Your task to perform on an android device: Go to Wikipedia Image 0: 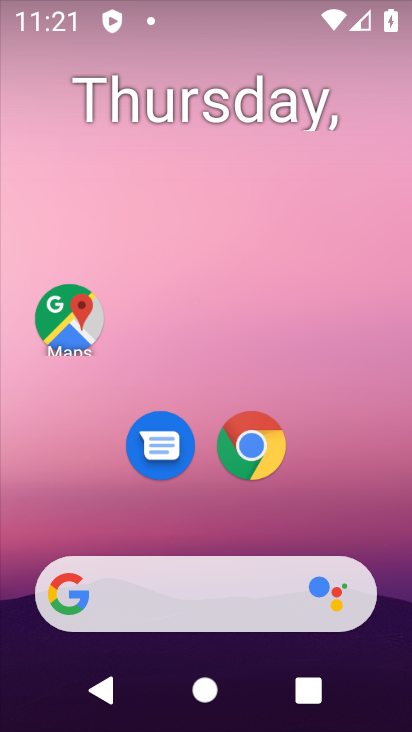
Step 0: drag from (308, 502) to (366, 60)
Your task to perform on an android device: Go to Wikipedia Image 1: 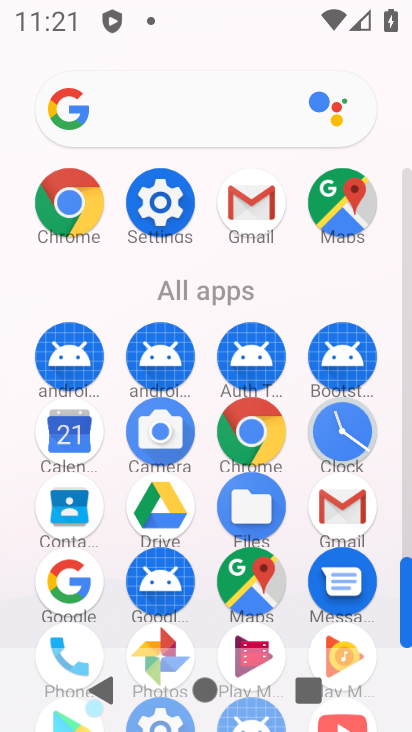
Step 1: click (161, 203)
Your task to perform on an android device: Go to Wikipedia Image 2: 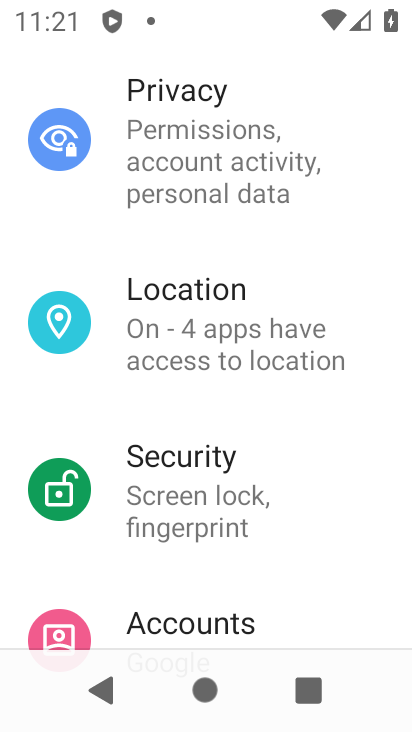
Step 2: drag from (236, 194) to (292, 692)
Your task to perform on an android device: Go to Wikipedia Image 3: 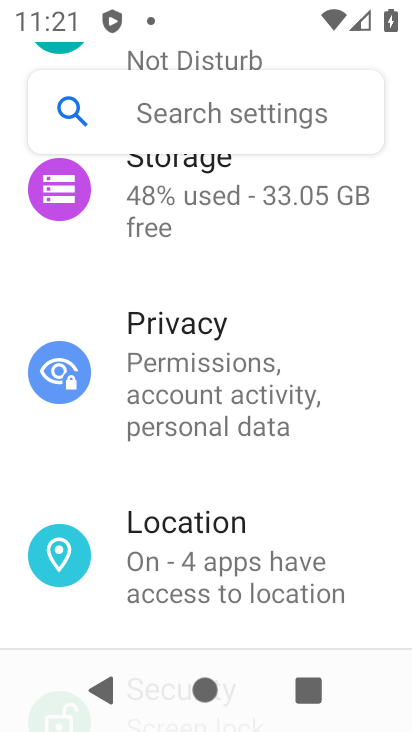
Step 3: drag from (321, 288) to (355, 639)
Your task to perform on an android device: Go to Wikipedia Image 4: 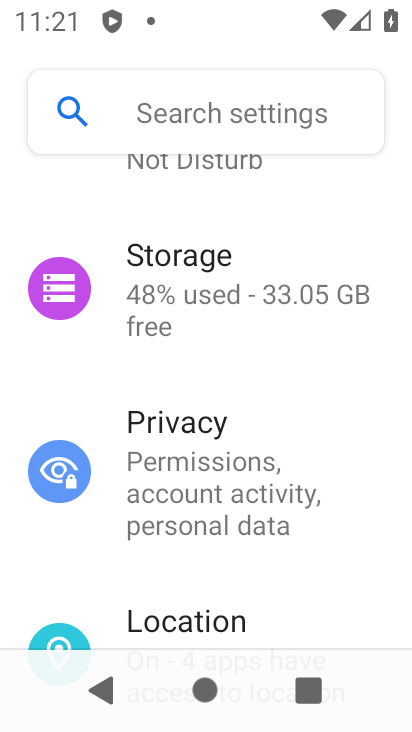
Step 4: drag from (307, 429) to (316, 691)
Your task to perform on an android device: Go to Wikipedia Image 5: 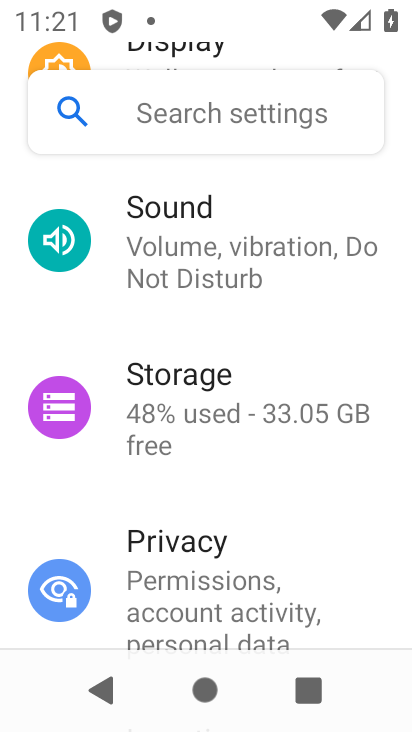
Step 5: drag from (261, 400) to (352, 716)
Your task to perform on an android device: Go to Wikipedia Image 6: 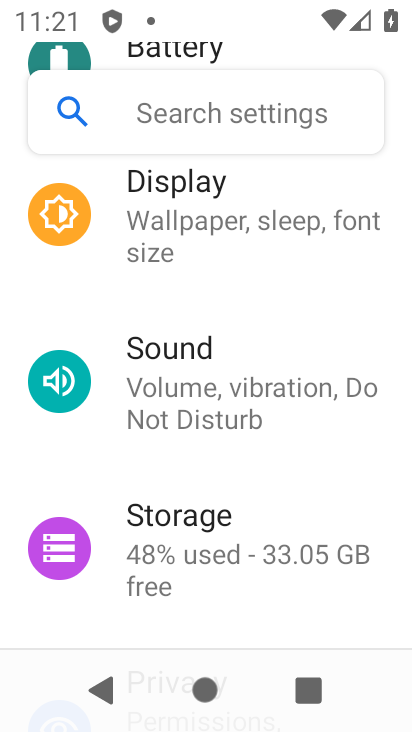
Step 6: drag from (251, 337) to (302, 724)
Your task to perform on an android device: Go to Wikipedia Image 7: 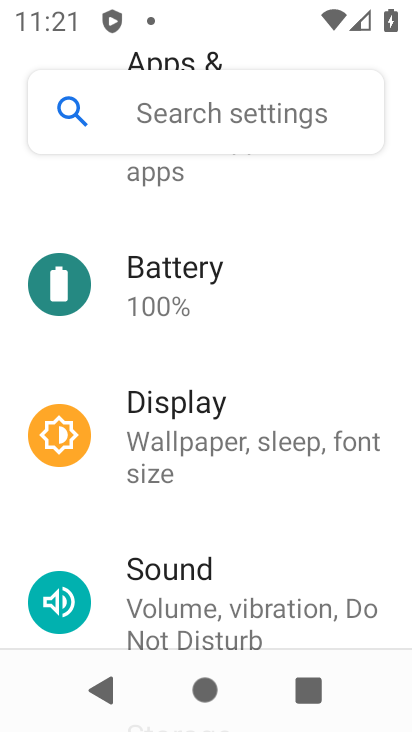
Step 7: drag from (323, 353) to (321, 680)
Your task to perform on an android device: Go to Wikipedia Image 8: 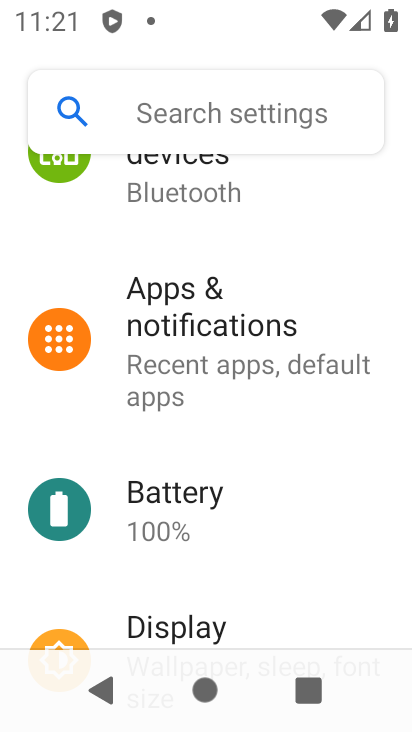
Step 8: drag from (214, 229) to (241, 600)
Your task to perform on an android device: Go to Wikipedia Image 9: 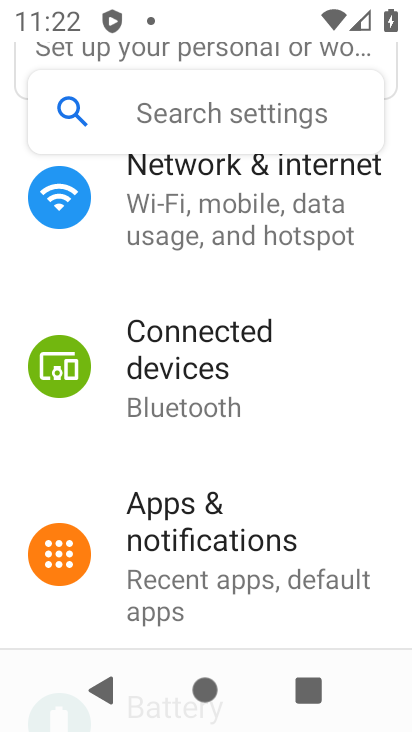
Step 9: drag from (234, 206) to (300, 560)
Your task to perform on an android device: Go to Wikipedia Image 10: 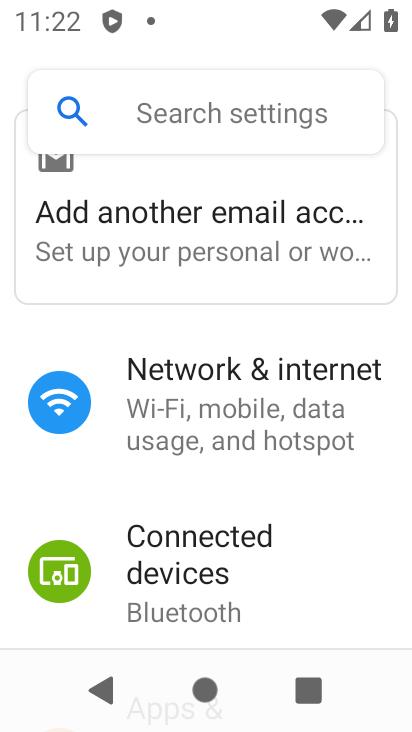
Step 10: click (191, 374)
Your task to perform on an android device: Go to Wikipedia Image 11: 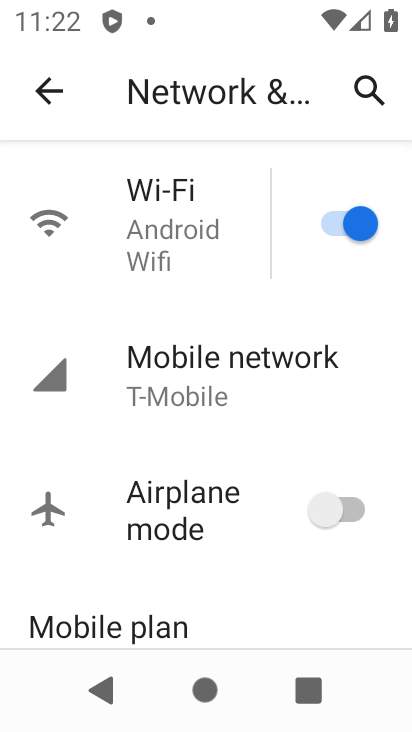
Step 11: click (161, 189)
Your task to perform on an android device: Go to Wikipedia Image 12: 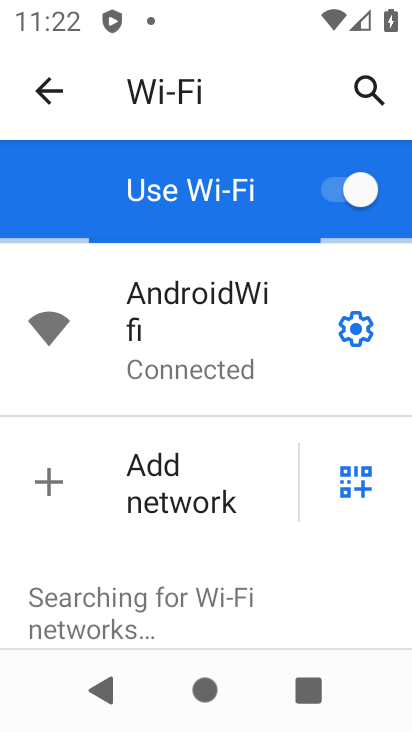
Step 12: task complete